Your task to perform on an android device: Go to network settings Image 0: 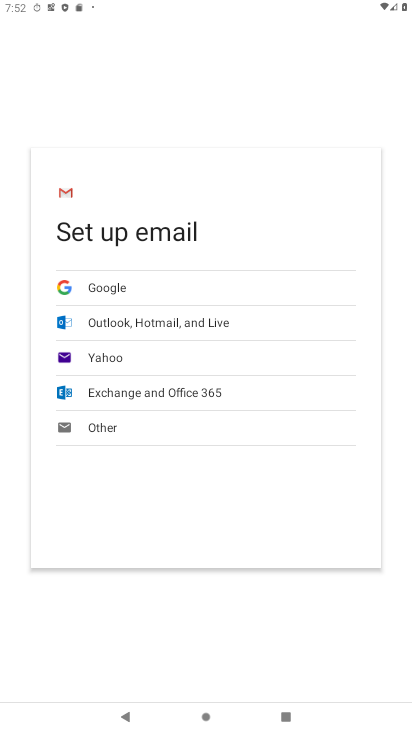
Step 0: press home button
Your task to perform on an android device: Go to network settings Image 1: 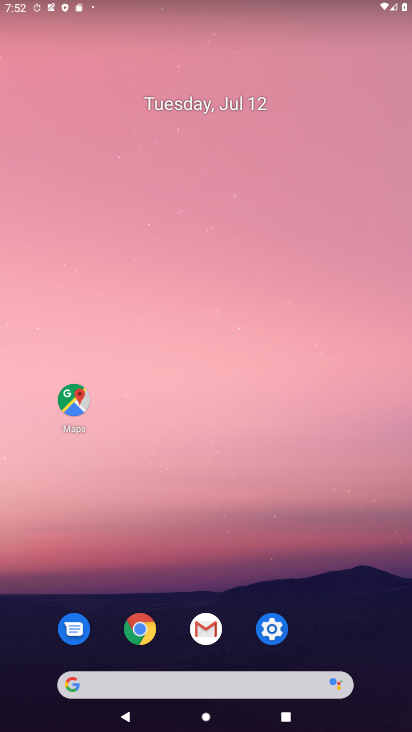
Step 1: click (290, 626)
Your task to perform on an android device: Go to network settings Image 2: 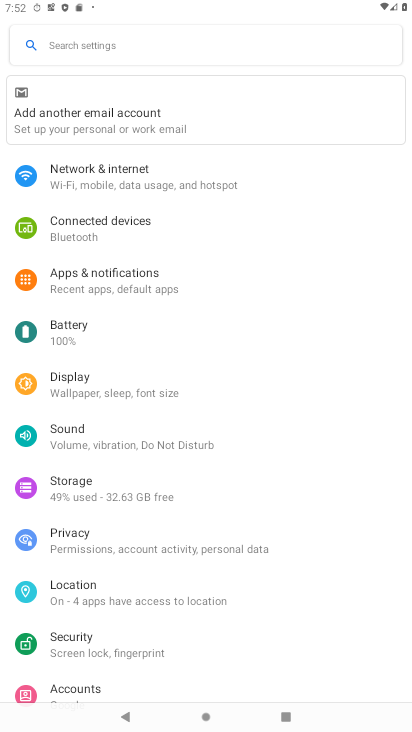
Step 2: click (123, 178)
Your task to perform on an android device: Go to network settings Image 3: 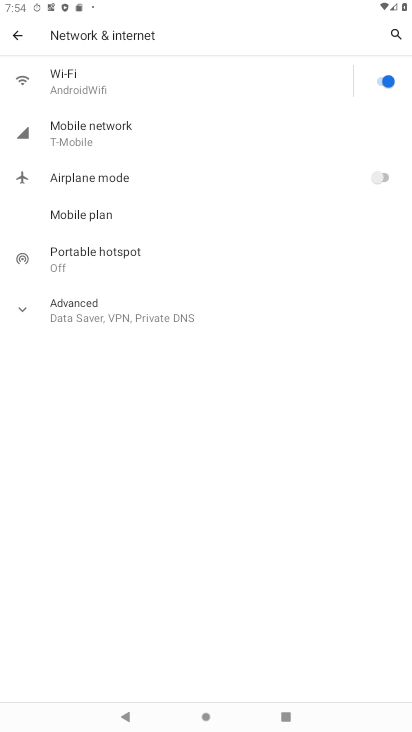
Step 3: task complete